Your task to perform on an android device: toggle notifications settings in the gmail app Image 0: 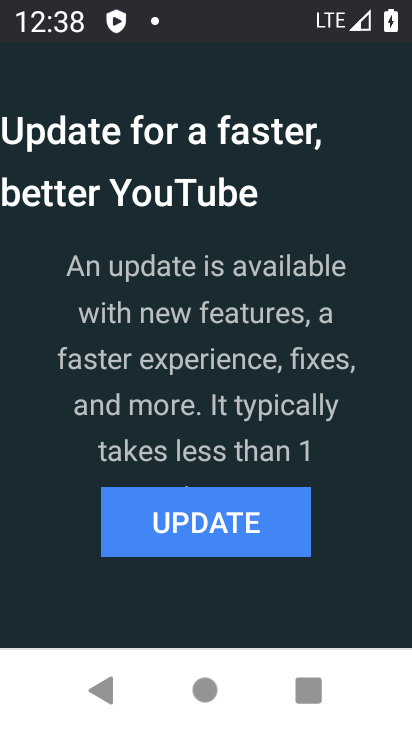
Step 0: drag from (375, 517) to (348, 154)
Your task to perform on an android device: toggle notifications settings in the gmail app Image 1: 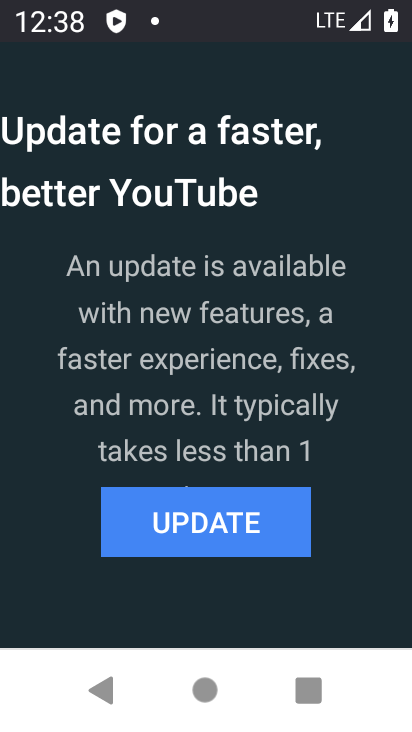
Step 1: press home button
Your task to perform on an android device: toggle notifications settings in the gmail app Image 2: 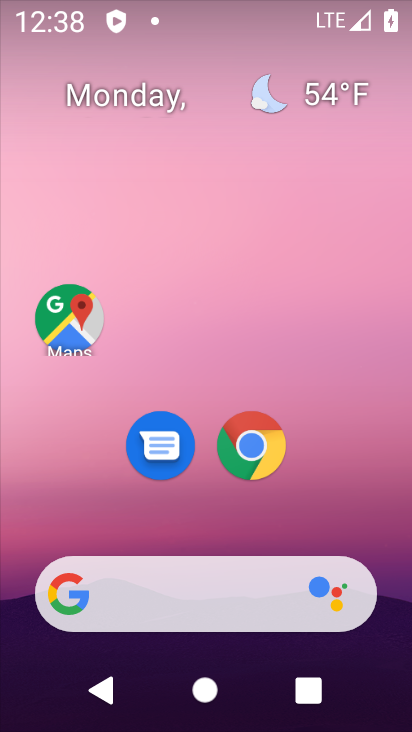
Step 2: drag from (384, 491) to (367, 68)
Your task to perform on an android device: toggle notifications settings in the gmail app Image 3: 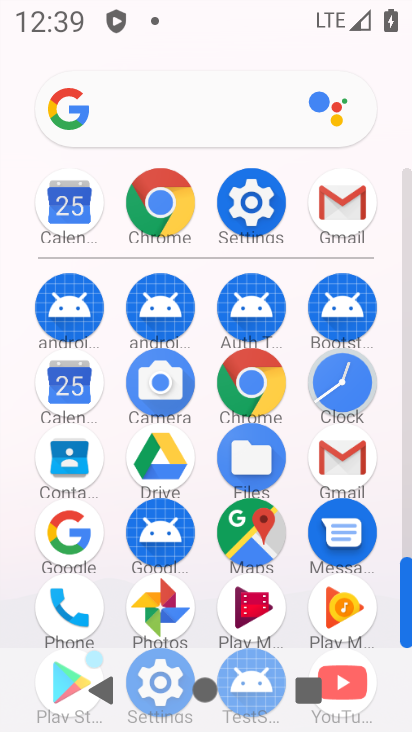
Step 3: click (349, 454)
Your task to perform on an android device: toggle notifications settings in the gmail app Image 4: 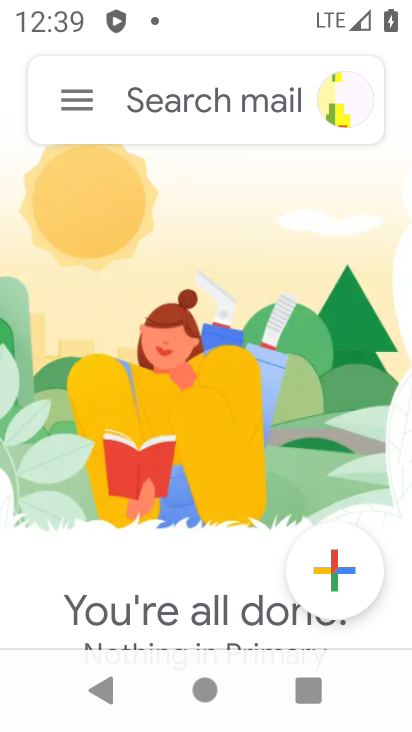
Step 4: click (83, 102)
Your task to perform on an android device: toggle notifications settings in the gmail app Image 5: 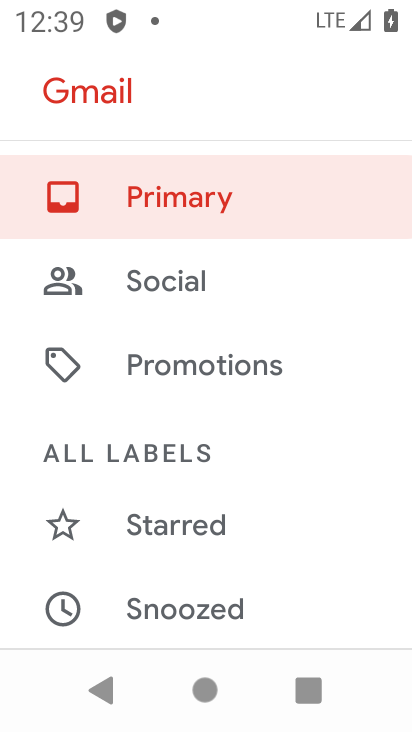
Step 5: drag from (262, 559) to (269, 256)
Your task to perform on an android device: toggle notifications settings in the gmail app Image 6: 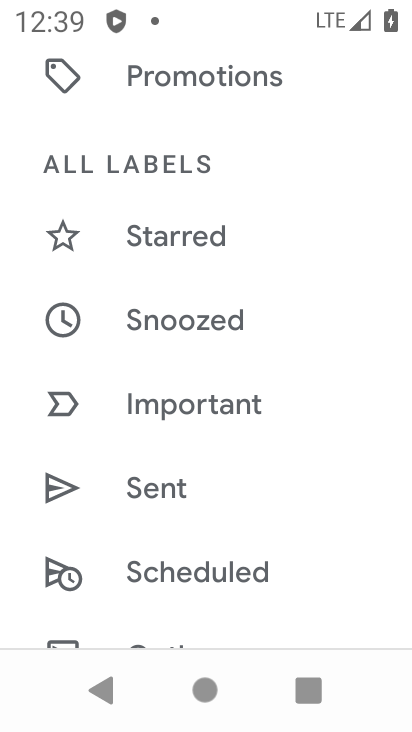
Step 6: drag from (257, 625) to (297, 255)
Your task to perform on an android device: toggle notifications settings in the gmail app Image 7: 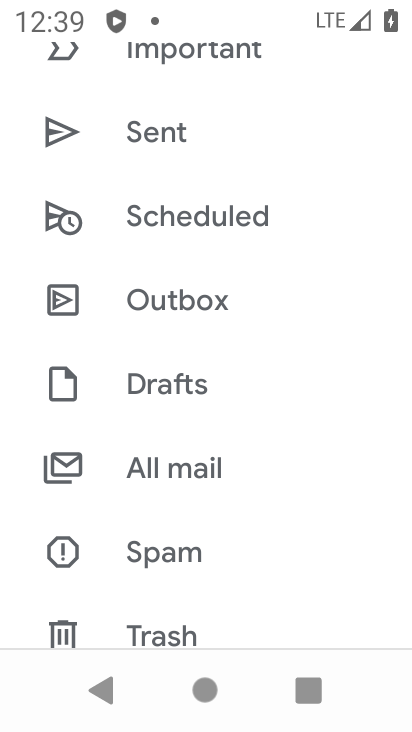
Step 7: drag from (263, 575) to (281, 266)
Your task to perform on an android device: toggle notifications settings in the gmail app Image 8: 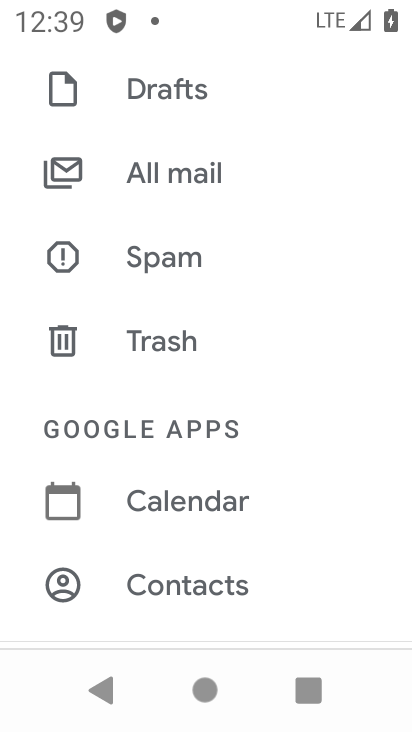
Step 8: drag from (261, 532) to (287, 248)
Your task to perform on an android device: toggle notifications settings in the gmail app Image 9: 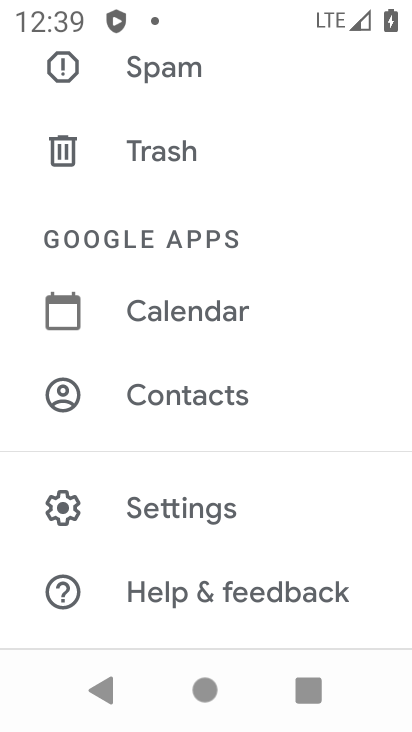
Step 9: click (201, 509)
Your task to perform on an android device: toggle notifications settings in the gmail app Image 10: 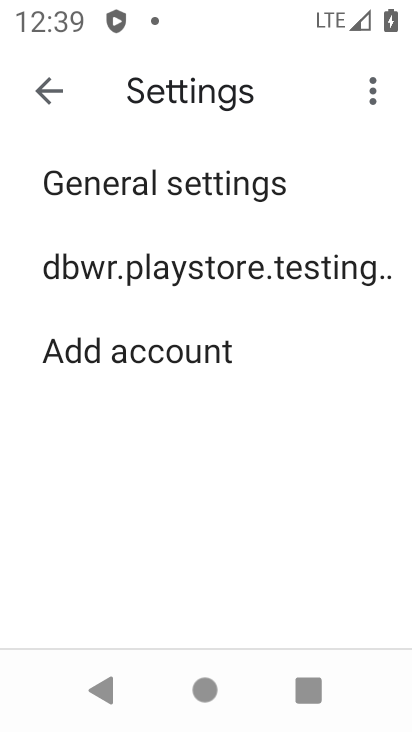
Step 10: click (250, 275)
Your task to perform on an android device: toggle notifications settings in the gmail app Image 11: 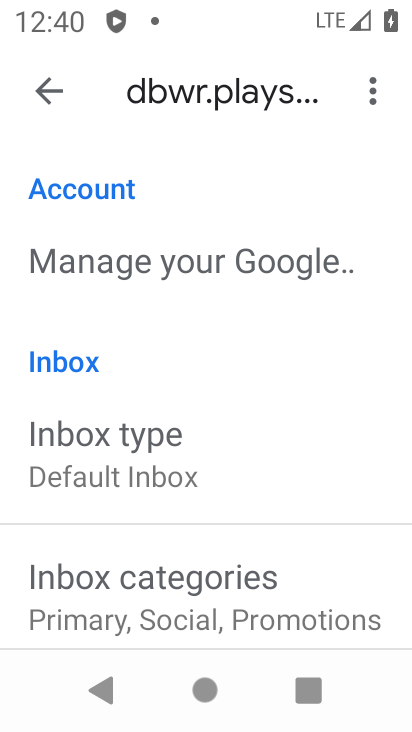
Step 11: drag from (328, 523) to (334, 188)
Your task to perform on an android device: toggle notifications settings in the gmail app Image 12: 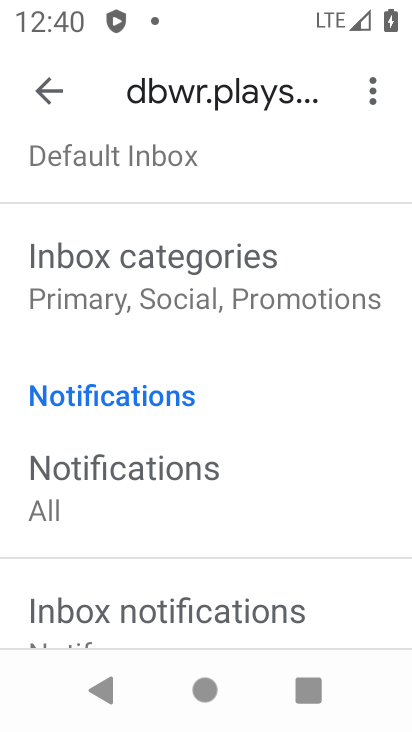
Step 12: click (150, 479)
Your task to perform on an android device: toggle notifications settings in the gmail app Image 13: 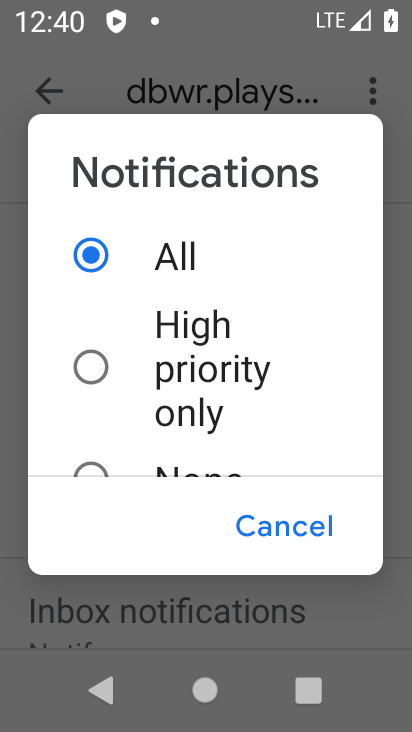
Step 13: drag from (181, 448) to (181, 217)
Your task to perform on an android device: toggle notifications settings in the gmail app Image 14: 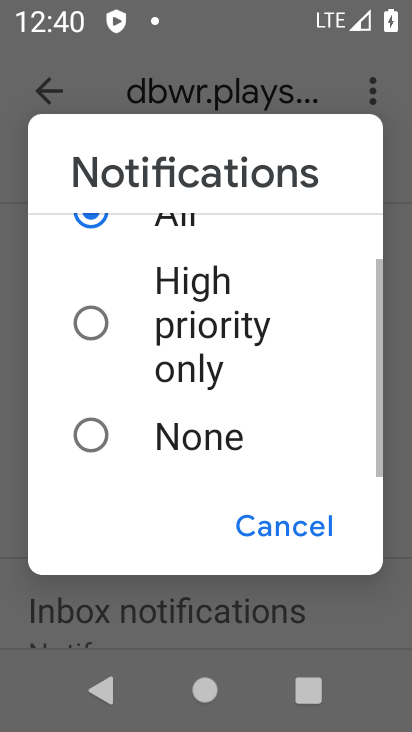
Step 14: drag from (204, 454) to (207, 286)
Your task to perform on an android device: toggle notifications settings in the gmail app Image 15: 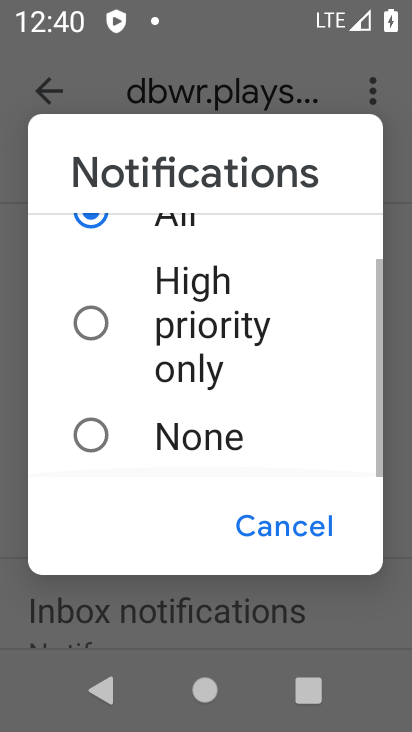
Step 15: click (88, 432)
Your task to perform on an android device: toggle notifications settings in the gmail app Image 16: 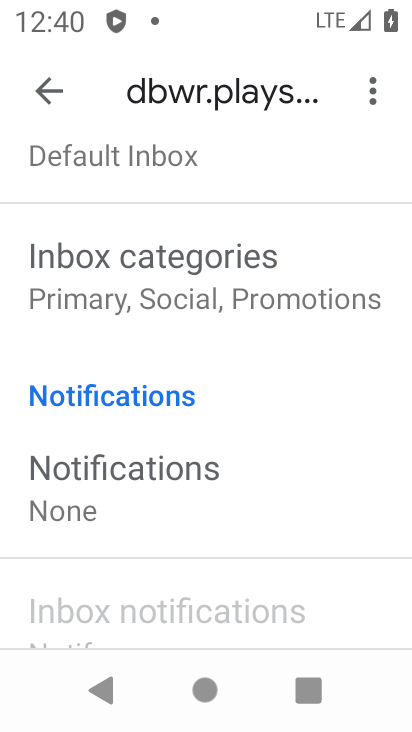
Step 16: task complete